Your task to perform on an android device: What's the weather going to be tomorrow? Image 0: 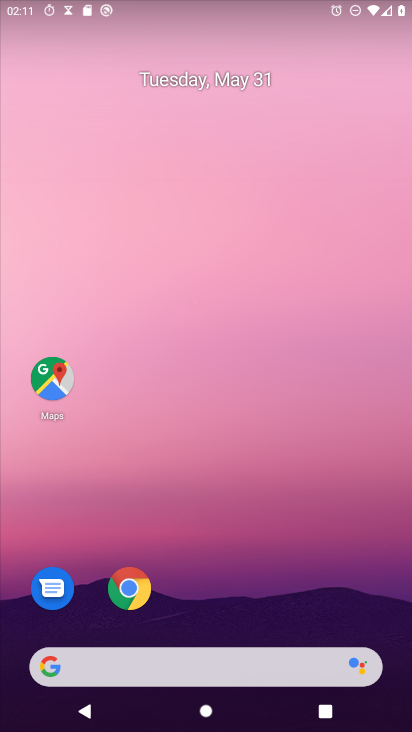
Step 0: drag from (320, 664) to (299, 0)
Your task to perform on an android device: What's the weather going to be tomorrow? Image 1: 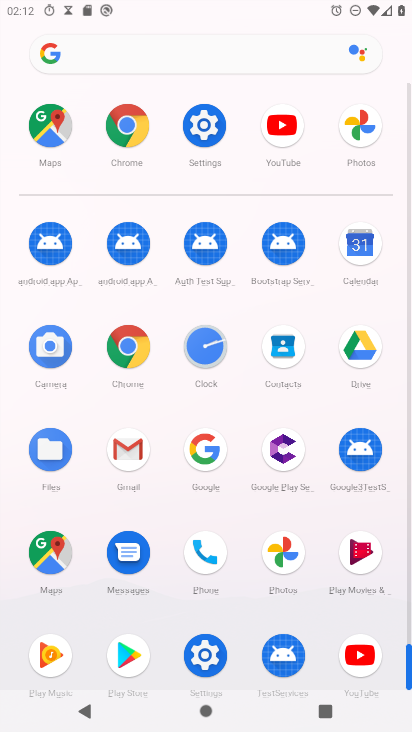
Step 1: press home button
Your task to perform on an android device: What's the weather going to be tomorrow? Image 2: 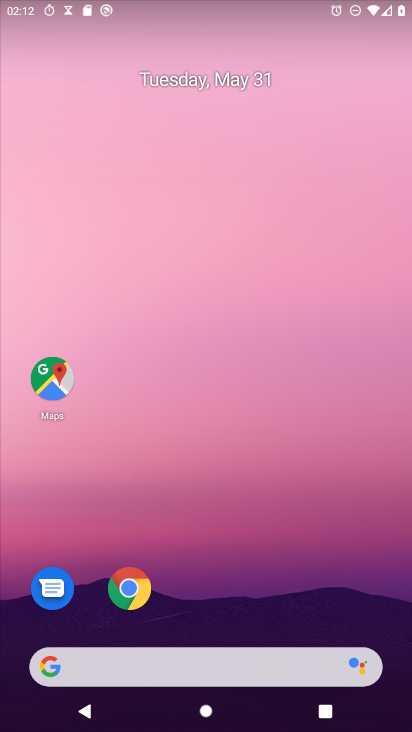
Step 2: drag from (13, 295) to (368, 282)
Your task to perform on an android device: What's the weather going to be tomorrow? Image 3: 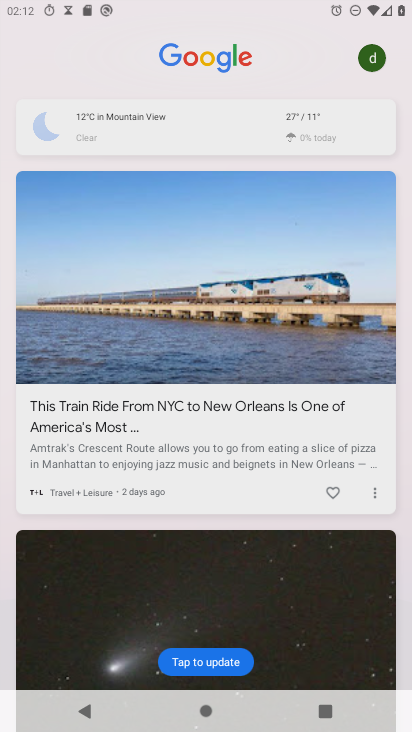
Step 3: click (230, 126)
Your task to perform on an android device: What's the weather going to be tomorrow? Image 4: 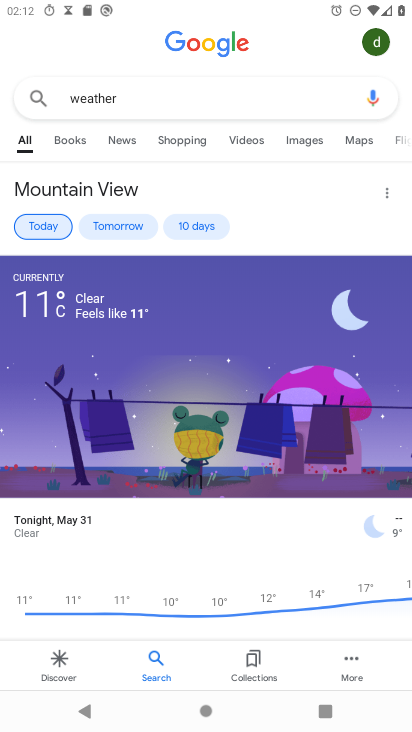
Step 4: click (140, 222)
Your task to perform on an android device: What's the weather going to be tomorrow? Image 5: 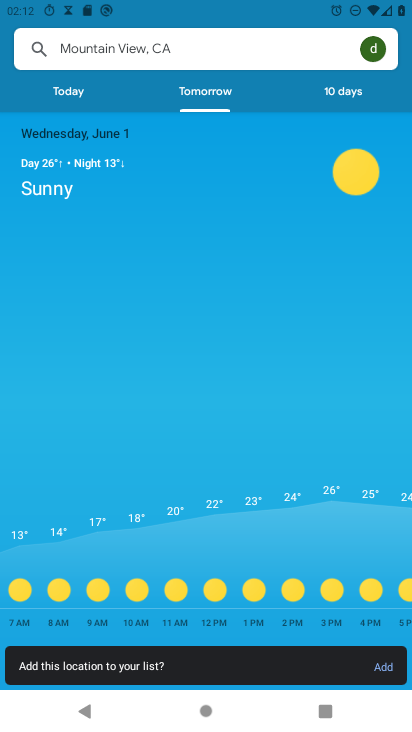
Step 5: task complete